Your task to perform on an android device: turn on javascript in the chrome app Image 0: 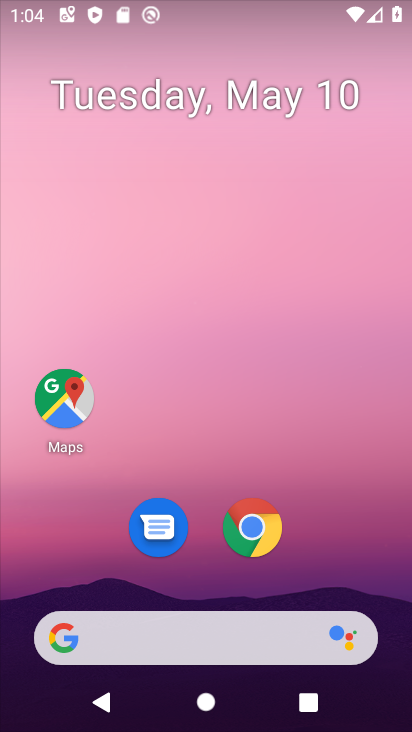
Step 0: drag from (290, 377) to (319, 106)
Your task to perform on an android device: turn on javascript in the chrome app Image 1: 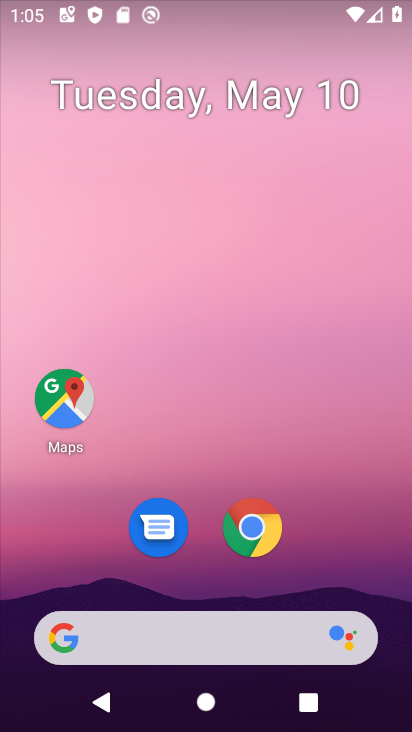
Step 1: drag from (239, 591) to (301, 137)
Your task to perform on an android device: turn on javascript in the chrome app Image 2: 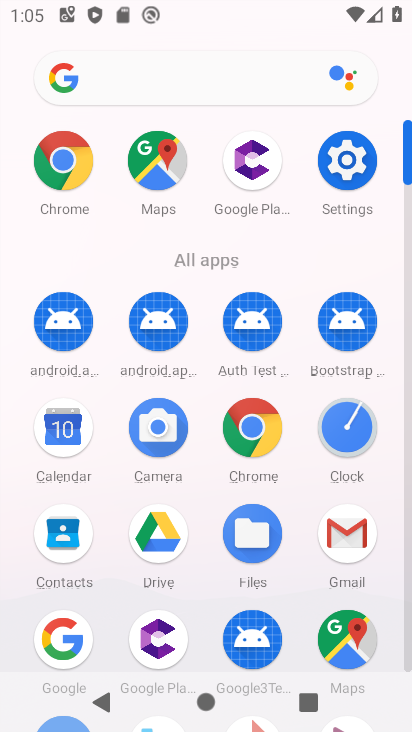
Step 2: click (61, 162)
Your task to perform on an android device: turn on javascript in the chrome app Image 3: 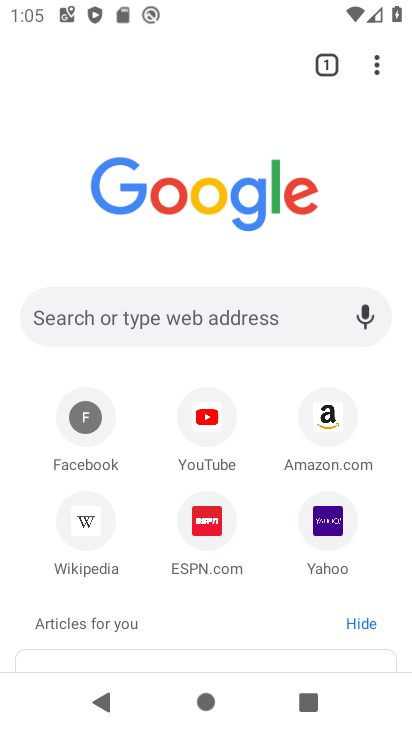
Step 3: click (374, 70)
Your task to perform on an android device: turn on javascript in the chrome app Image 4: 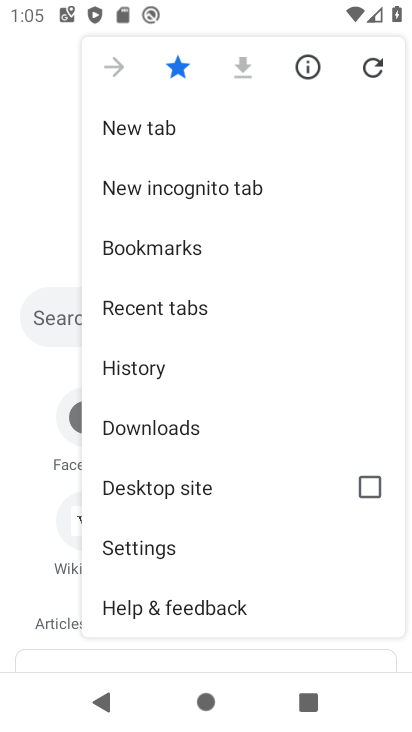
Step 4: click (166, 550)
Your task to perform on an android device: turn on javascript in the chrome app Image 5: 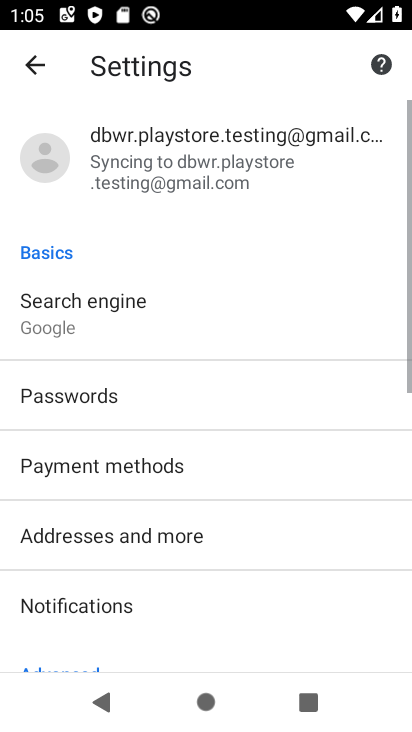
Step 5: drag from (169, 621) to (176, 290)
Your task to perform on an android device: turn on javascript in the chrome app Image 6: 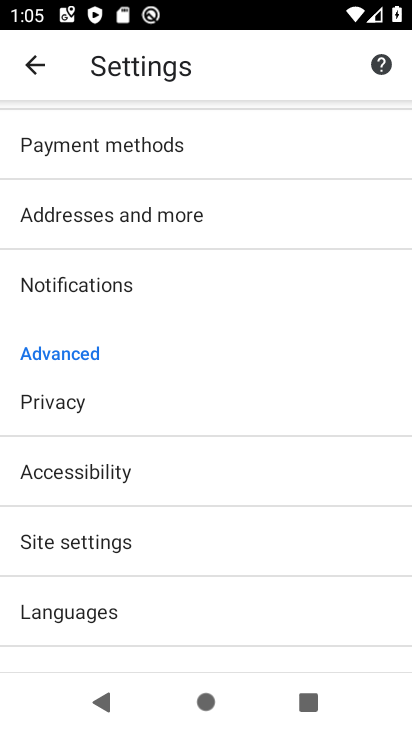
Step 6: click (64, 543)
Your task to perform on an android device: turn on javascript in the chrome app Image 7: 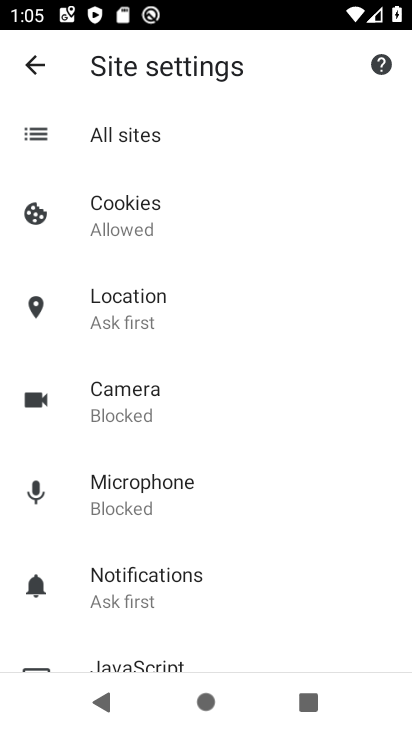
Step 7: drag from (166, 616) to (195, 314)
Your task to perform on an android device: turn on javascript in the chrome app Image 8: 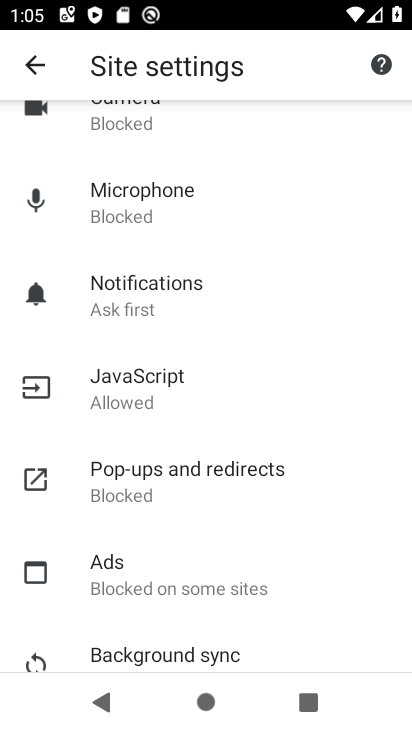
Step 8: click (131, 396)
Your task to perform on an android device: turn on javascript in the chrome app Image 9: 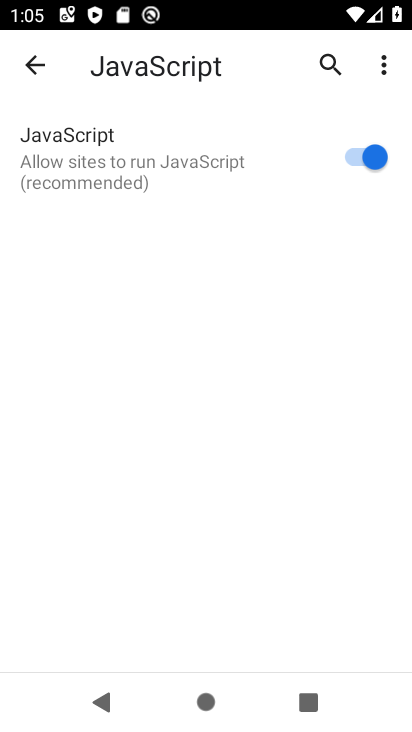
Step 9: task complete